Your task to perform on an android device: set the stopwatch Image 0: 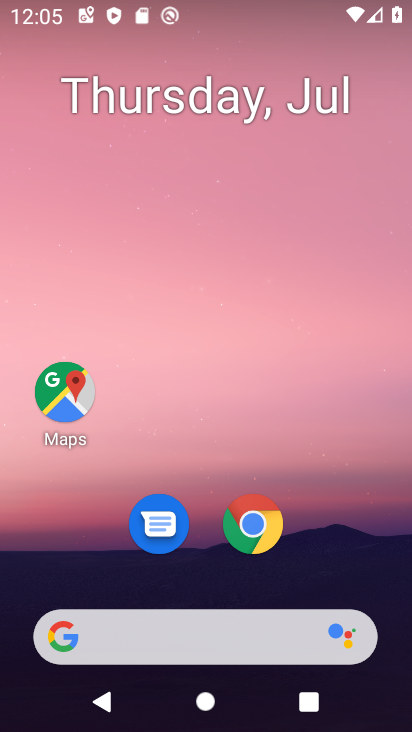
Step 0: drag from (195, 630) to (304, 65)
Your task to perform on an android device: set the stopwatch Image 1: 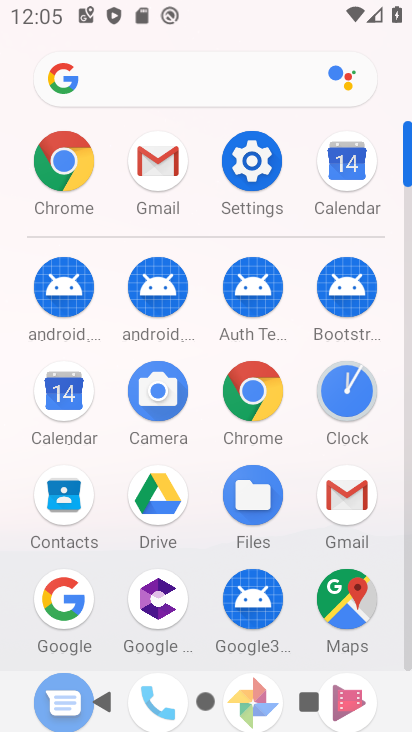
Step 1: click (345, 387)
Your task to perform on an android device: set the stopwatch Image 2: 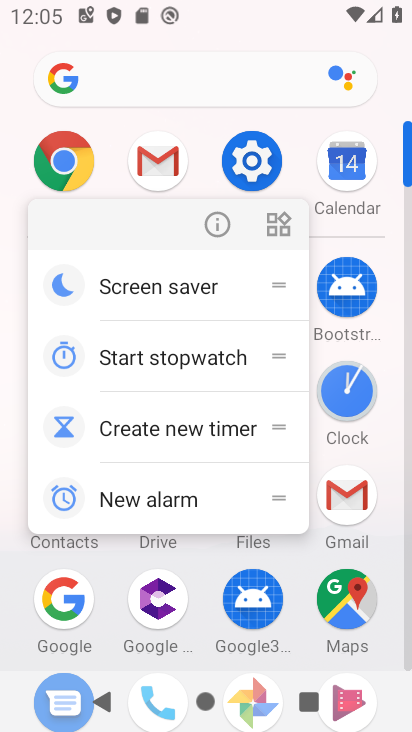
Step 2: click (345, 386)
Your task to perform on an android device: set the stopwatch Image 3: 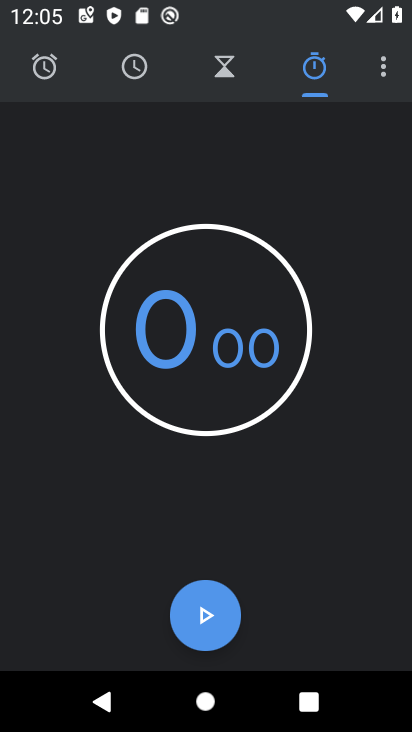
Step 3: click (207, 343)
Your task to perform on an android device: set the stopwatch Image 4: 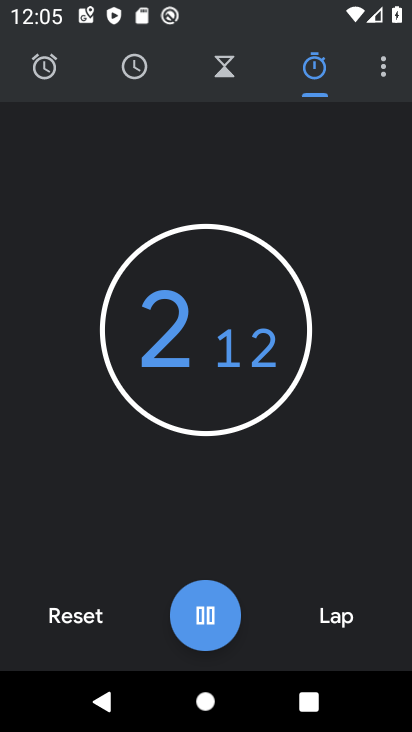
Step 4: click (207, 343)
Your task to perform on an android device: set the stopwatch Image 5: 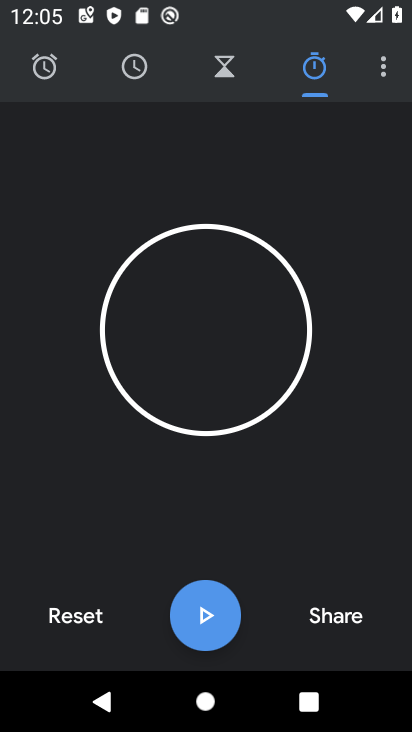
Step 5: task complete